Your task to perform on an android device: search for starred emails in the gmail app Image 0: 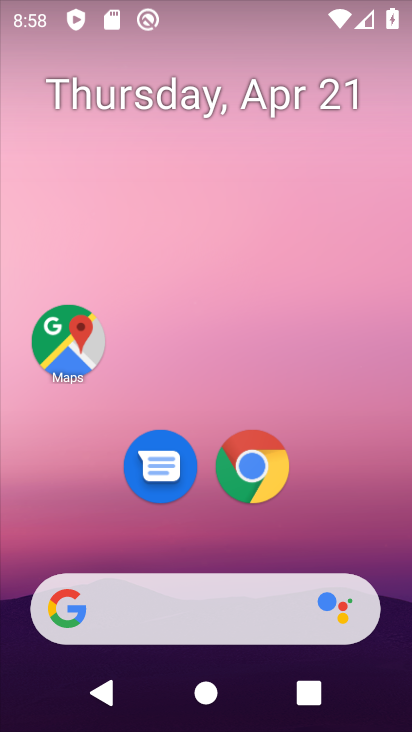
Step 0: drag from (297, 534) to (333, 91)
Your task to perform on an android device: search for starred emails in the gmail app Image 1: 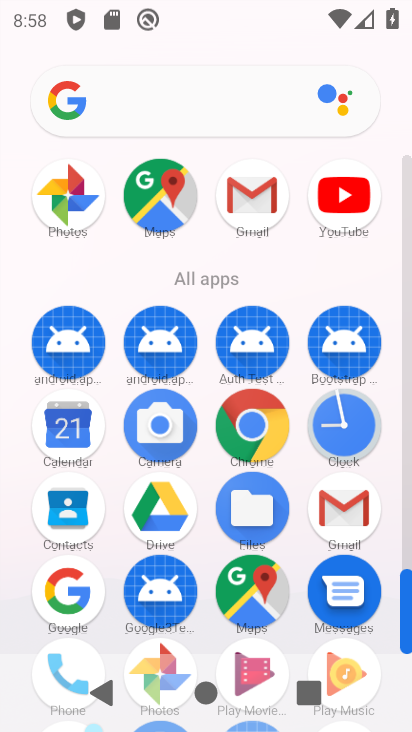
Step 1: click (262, 200)
Your task to perform on an android device: search for starred emails in the gmail app Image 2: 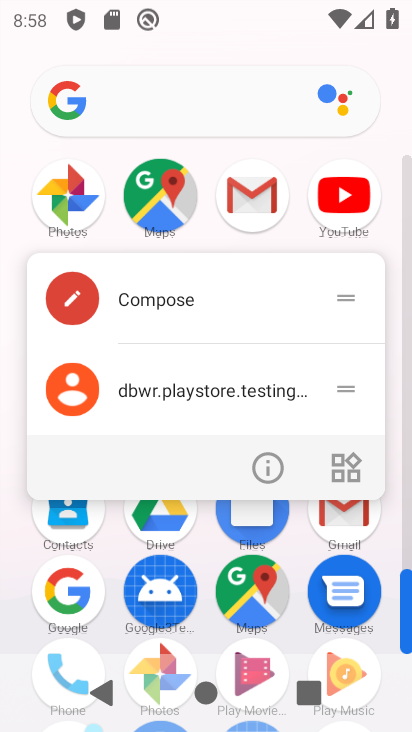
Step 2: click (253, 199)
Your task to perform on an android device: search for starred emails in the gmail app Image 3: 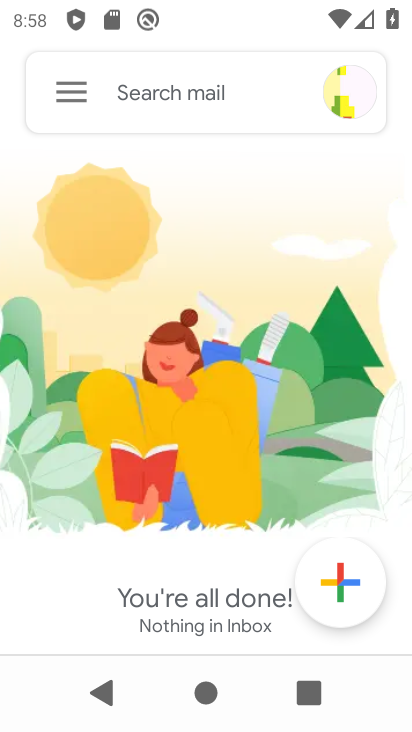
Step 3: click (72, 95)
Your task to perform on an android device: search for starred emails in the gmail app Image 4: 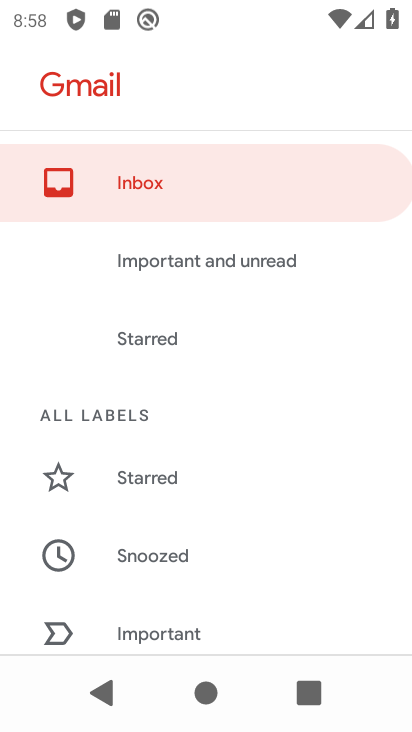
Step 4: click (115, 340)
Your task to perform on an android device: search for starred emails in the gmail app Image 5: 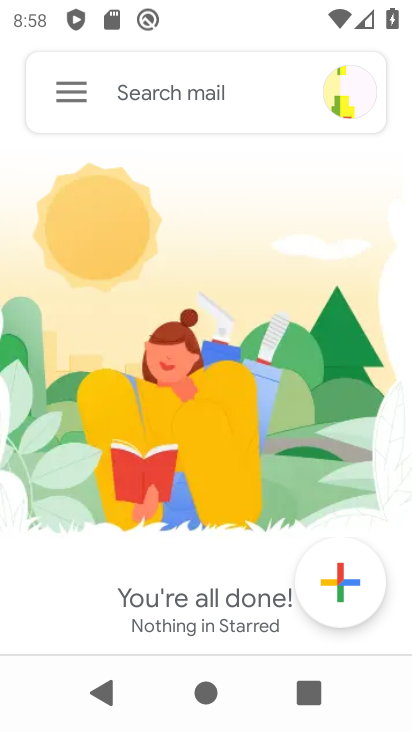
Step 5: task complete